Your task to perform on an android device: Do I have any events tomorrow? Image 0: 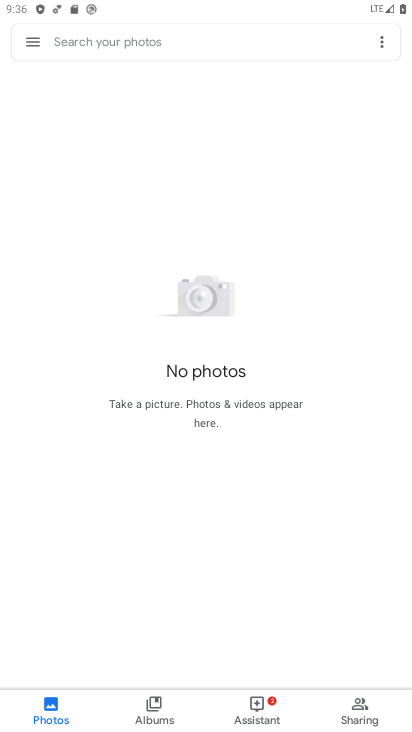
Step 0: press home button
Your task to perform on an android device: Do I have any events tomorrow? Image 1: 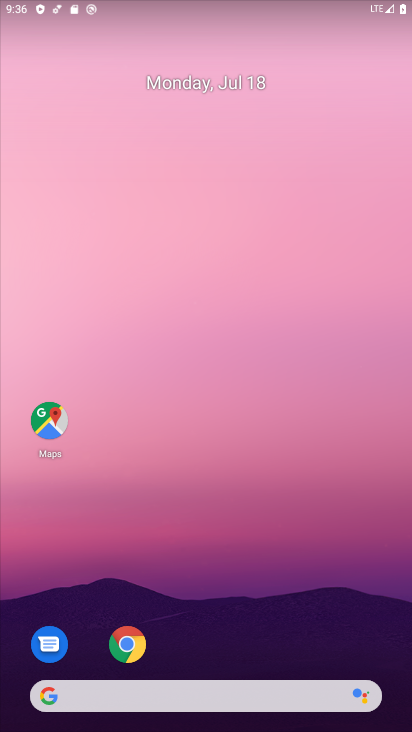
Step 1: drag from (339, 603) to (358, 181)
Your task to perform on an android device: Do I have any events tomorrow? Image 2: 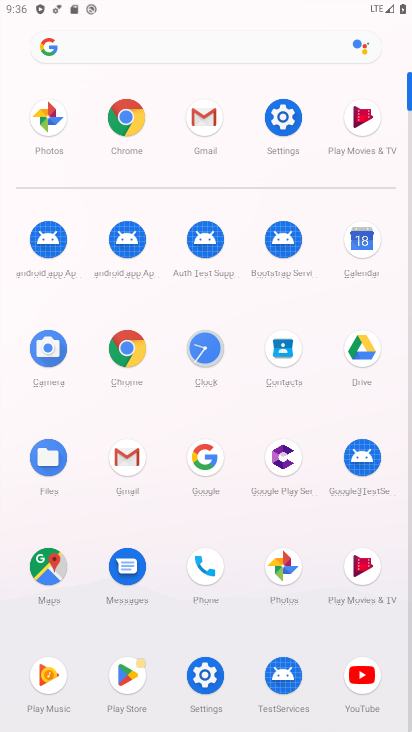
Step 2: click (366, 249)
Your task to perform on an android device: Do I have any events tomorrow? Image 3: 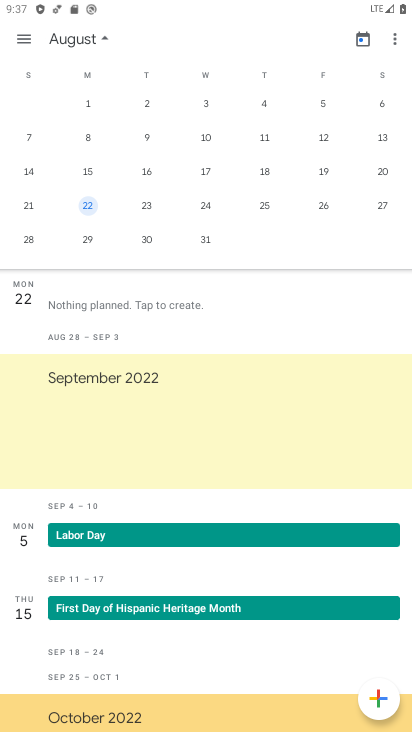
Step 3: drag from (208, 442) to (214, 199)
Your task to perform on an android device: Do I have any events tomorrow? Image 4: 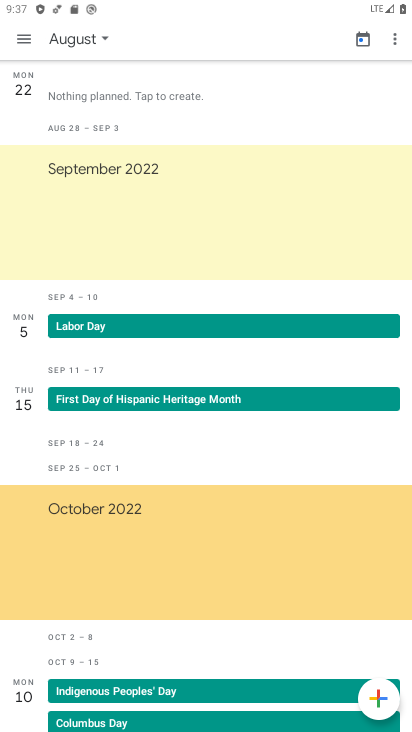
Step 4: drag from (225, 131) to (232, 288)
Your task to perform on an android device: Do I have any events tomorrow? Image 5: 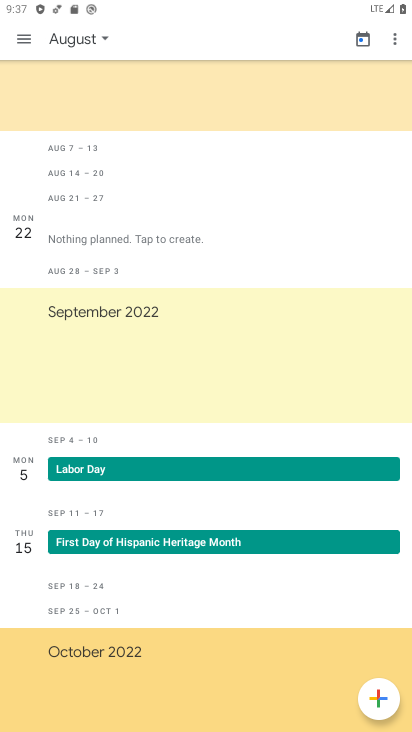
Step 5: drag from (227, 122) to (247, 356)
Your task to perform on an android device: Do I have any events tomorrow? Image 6: 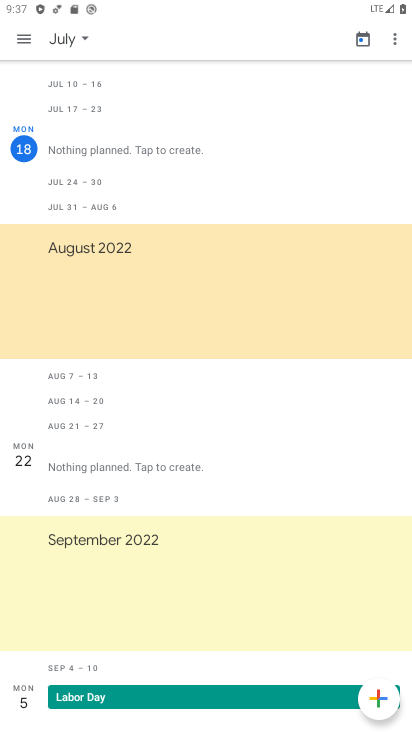
Step 6: click (89, 37)
Your task to perform on an android device: Do I have any events tomorrow? Image 7: 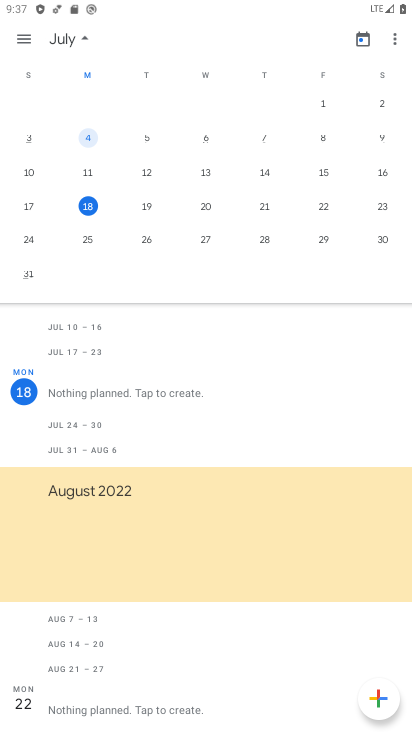
Step 7: click (201, 208)
Your task to perform on an android device: Do I have any events tomorrow? Image 8: 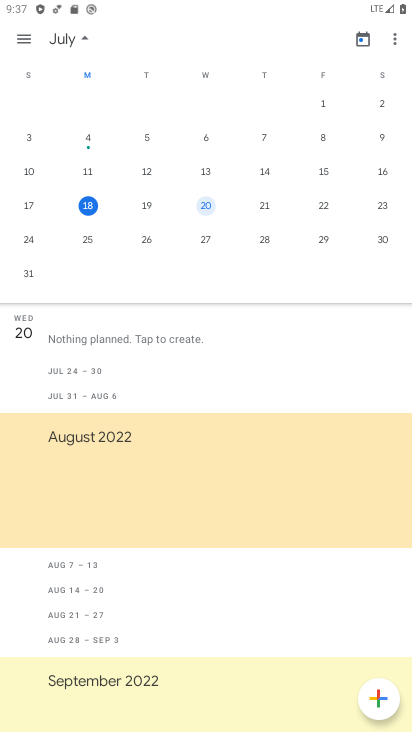
Step 8: task complete